Your task to perform on an android device: add a contact in the contacts app Image 0: 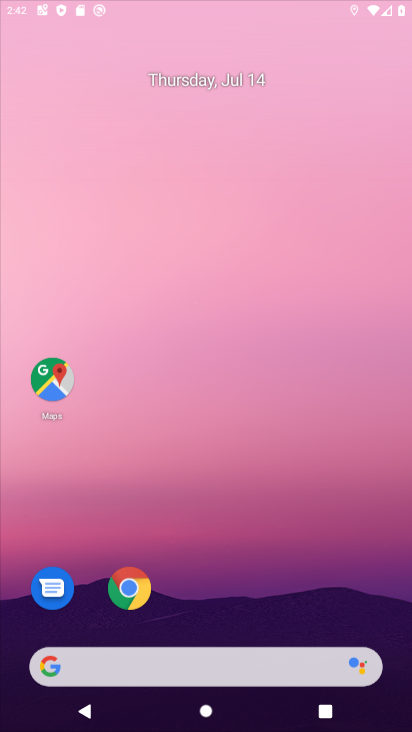
Step 0: click (242, 604)
Your task to perform on an android device: add a contact in the contacts app Image 1: 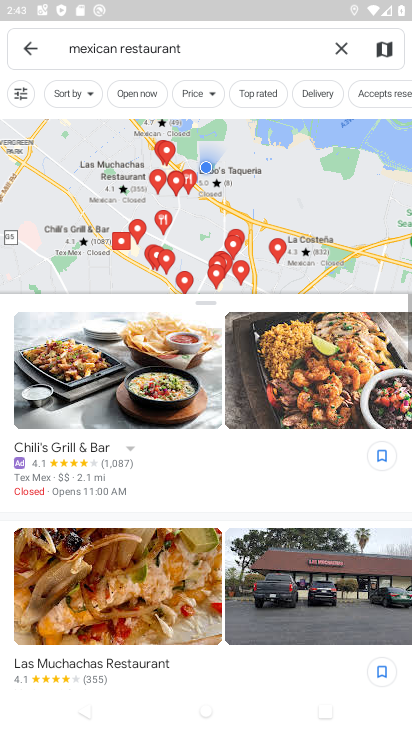
Step 1: press home button
Your task to perform on an android device: add a contact in the contacts app Image 2: 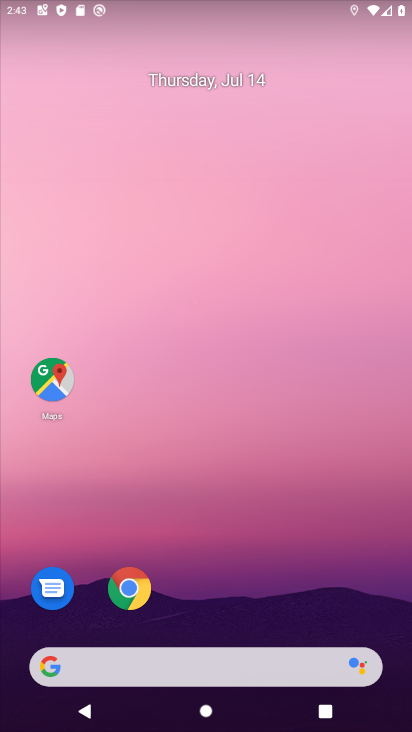
Step 2: drag from (206, 633) to (190, 54)
Your task to perform on an android device: add a contact in the contacts app Image 3: 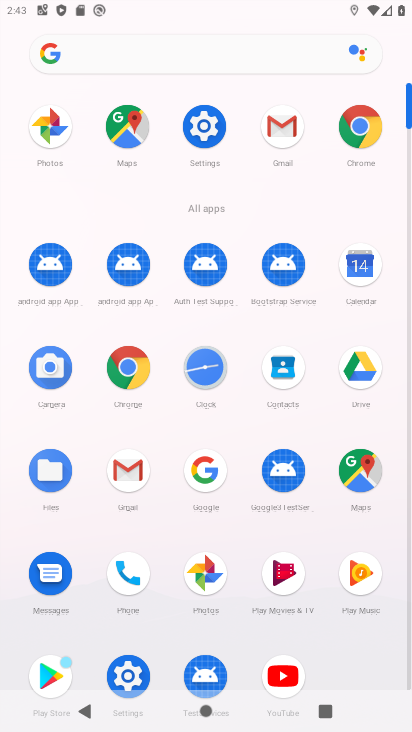
Step 3: click (125, 573)
Your task to perform on an android device: add a contact in the contacts app Image 4: 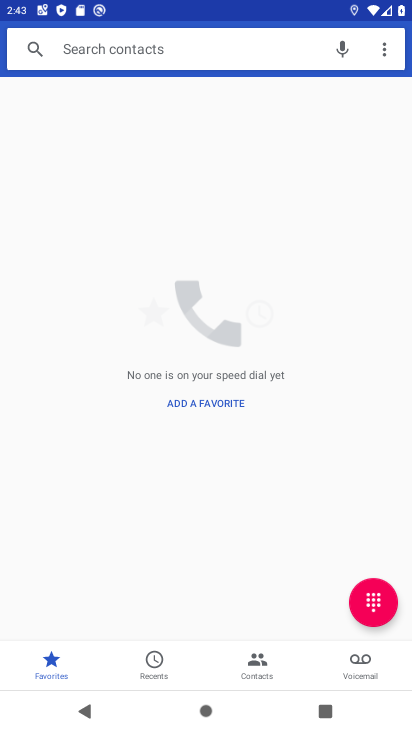
Step 4: click (281, 654)
Your task to perform on an android device: add a contact in the contacts app Image 5: 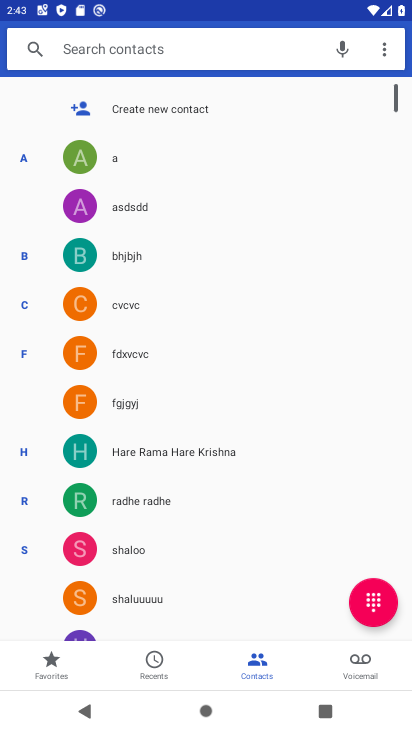
Step 5: click (113, 102)
Your task to perform on an android device: add a contact in the contacts app Image 6: 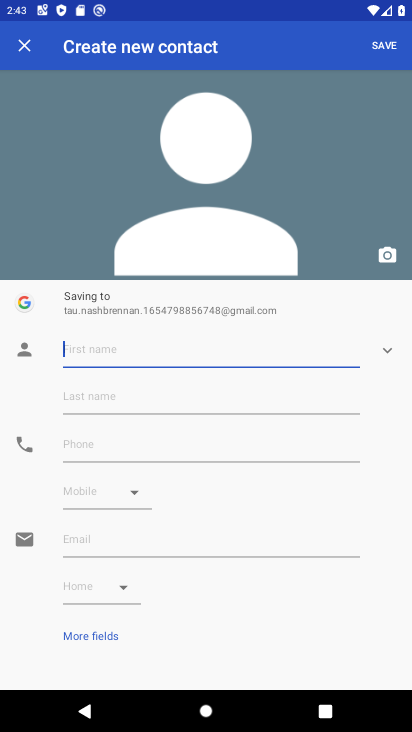
Step 6: type "Actions"
Your task to perform on an android device: add a contact in the contacts app Image 7: 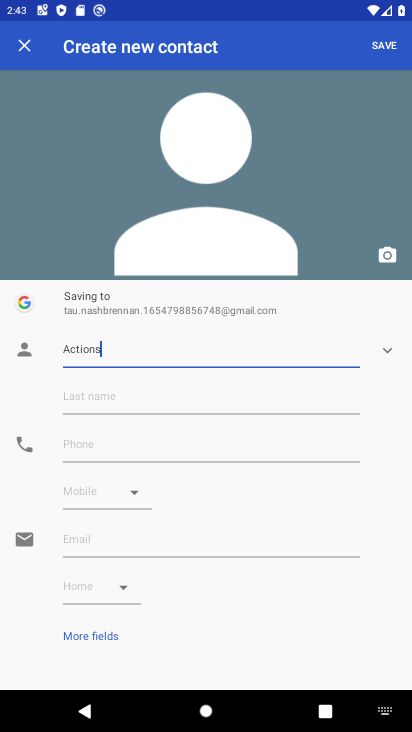
Step 7: type ""
Your task to perform on an android device: add a contact in the contacts app Image 8: 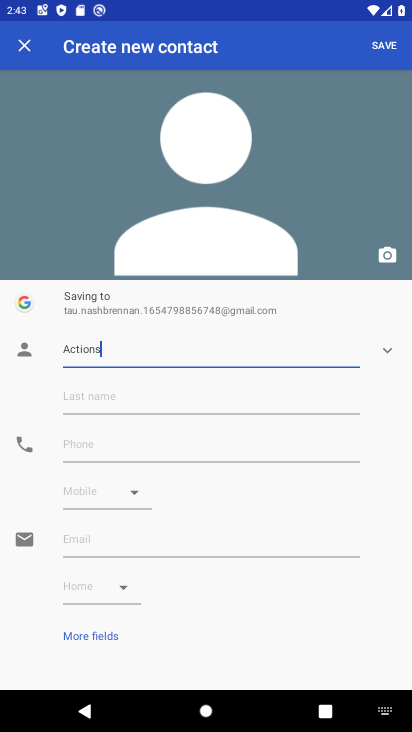
Step 8: click (392, 47)
Your task to perform on an android device: add a contact in the contacts app Image 9: 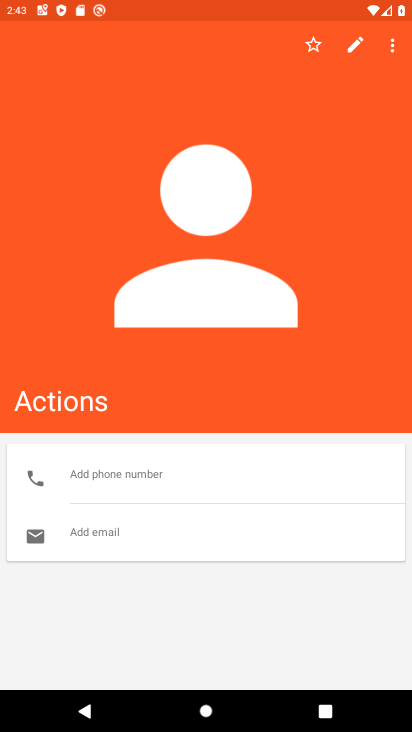
Step 9: task complete